Your task to perform on an android device: open sync settings in chrome Image 0: 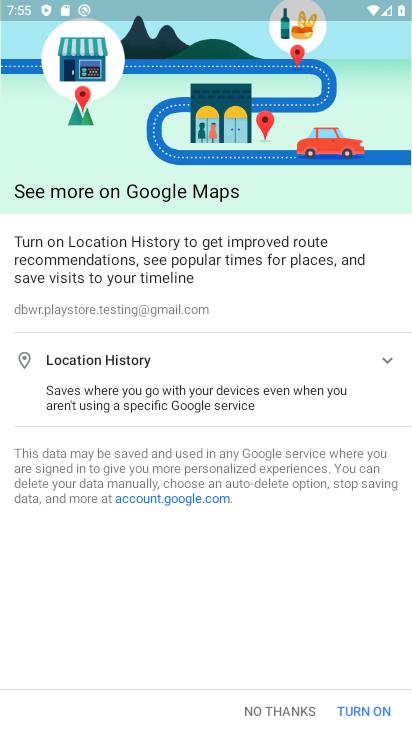
Step 0: press home button
Your task to perform on an android device: open sync settings in chrome Image 1: 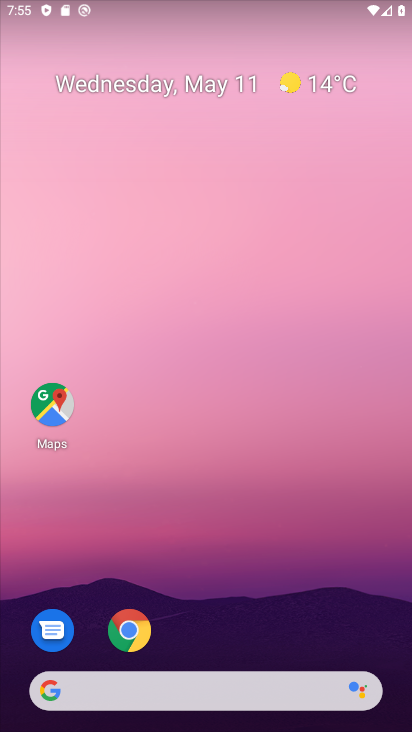
Step 1: click (133, 622)
Your task to perform on an android device: open sync settings in chrome Image 2: 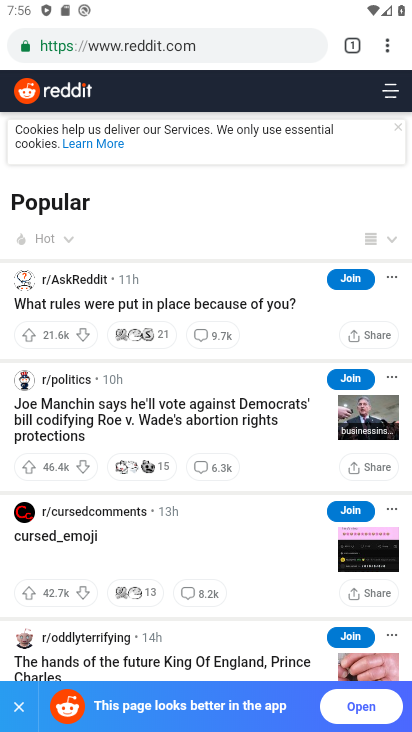
Step 2: click (381, 39)
Your task to perform on an android device: open sync settings in chrome Image 3: 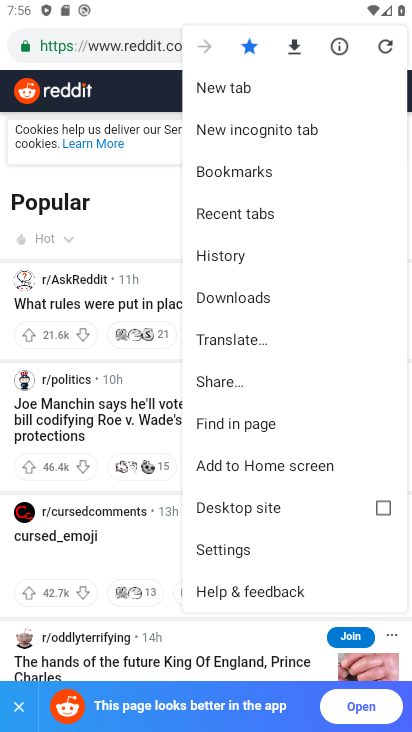
Step 3: click (213, 554)
Your task to perform on an android device: open sync settings in chrome Image 4: 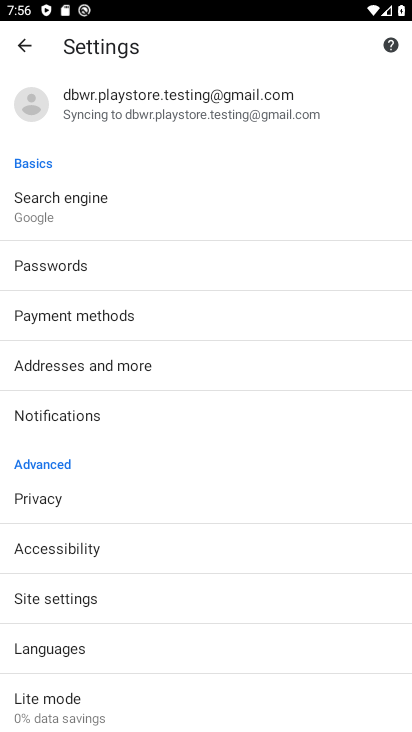
Step 4: click (129, 120)
Your task to perform on an android device: open sync settings in chrome Image 5: 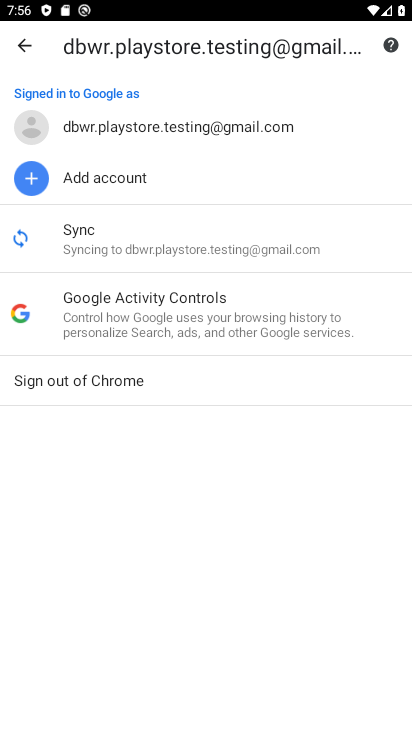
Step 5: task complete